Your task to perform on an android device: When is my next appointment? Image 0: 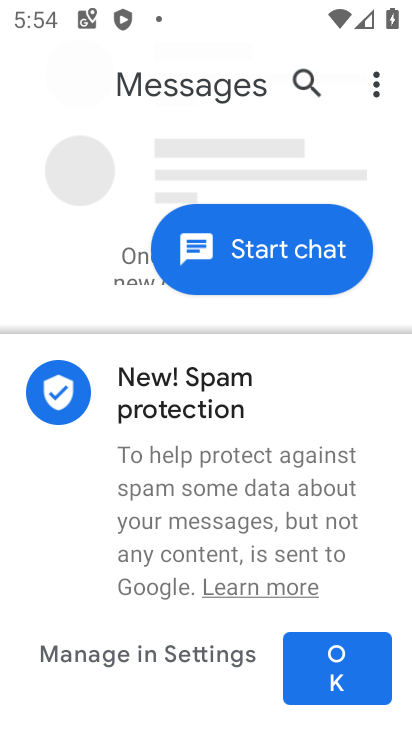
Step 0: drag from (238, 581) to (374, 449)
Your task to perform on an android device: When is my next appointment? Image 1: 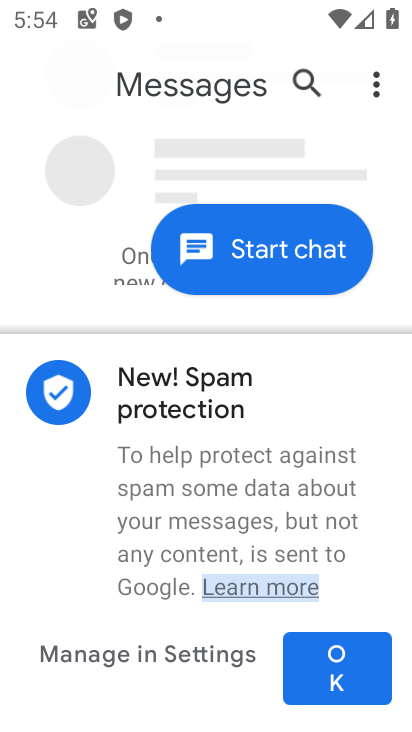
Step 1: press home button
Your task to perform on an android device: When is my next appointment? Image 2: 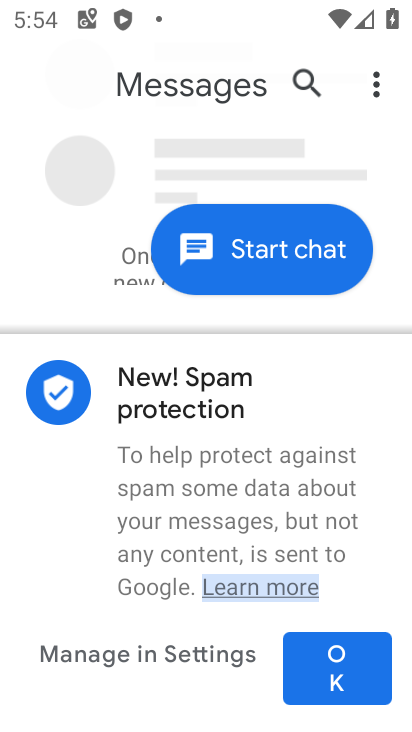
Step 2: click (395, 564)
Your task to perform on an android device: When is my next appointment? Image 3: 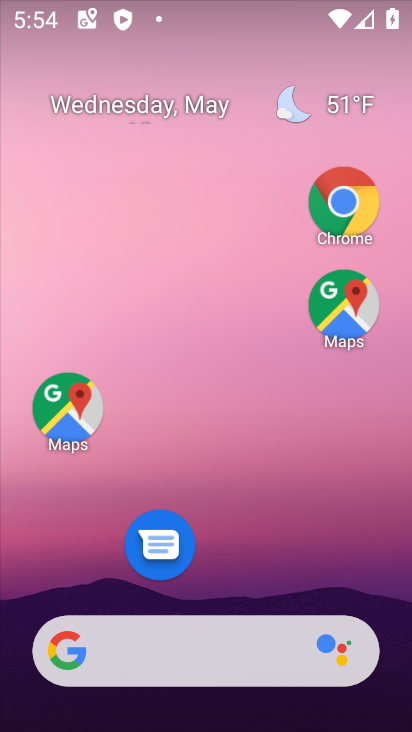
Step 3: drag from (227, 558) to (193, 5)
Your task to perform on an android device: When is my next appointment? Image 4: 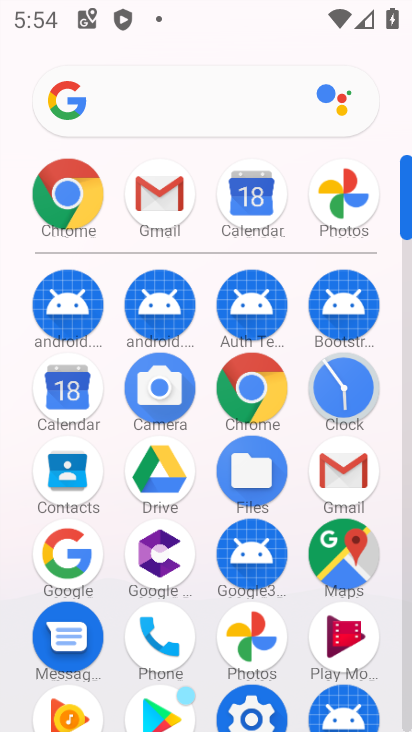
Step 4: drag from (211, 719) to (234, 358)
Your task to perform on an android device: When is my next appointment? Image 5: 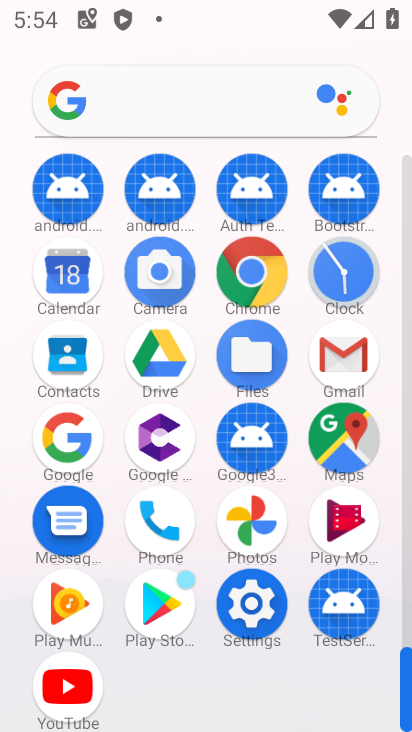
Step 5: click (76, 274)
Your task to perform on an android device: When is my next appointment? Image 6: 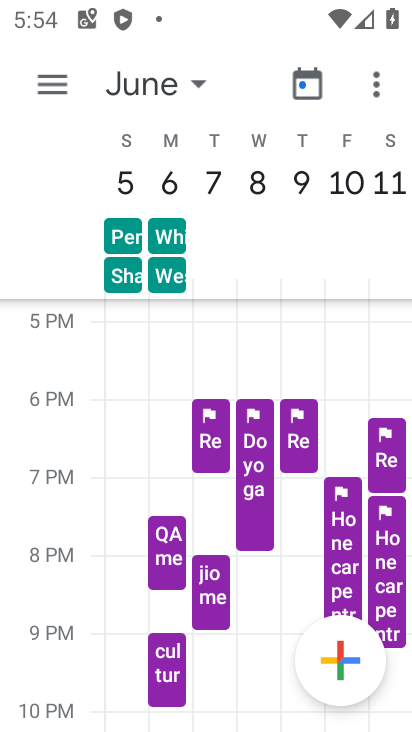
Step 6: click (73, 90)
Your task to perform on an android device: When is my next appointment? Image 7: 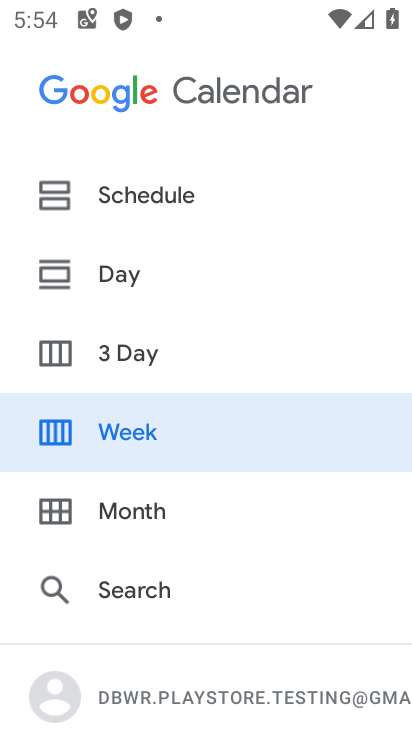
Step 7: click (160, 215)
Your task to perform on an android device: When is my next appointment? Image 8: 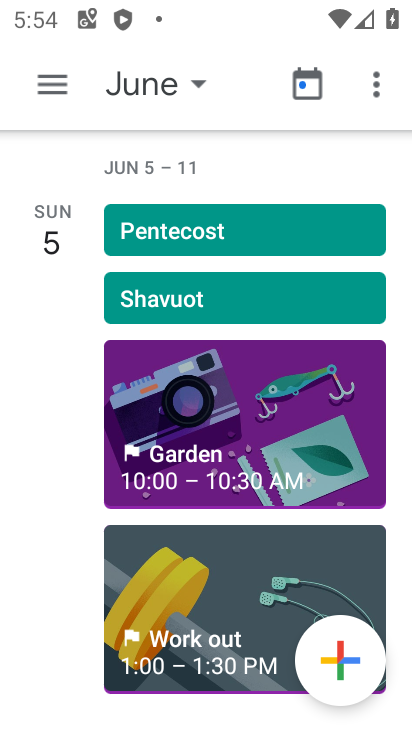
Step 8: task complete